Your task to perform on an android device: Toggle the flashlight Image 0: 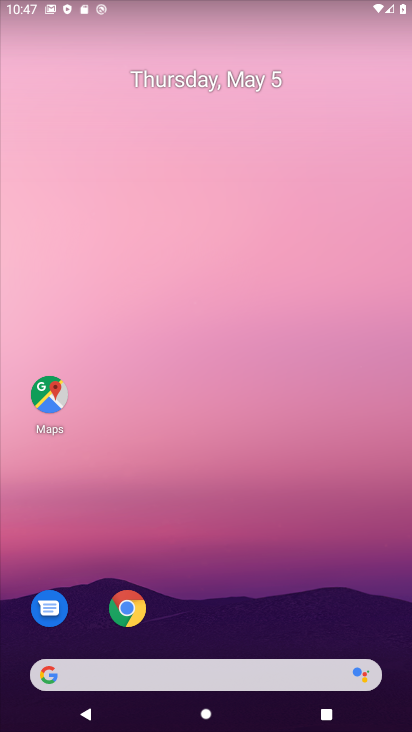
Step 0: drag from (243, 586) to (107, 75)
Your task to perform on an android device: Toggle the flashlight Image 1: 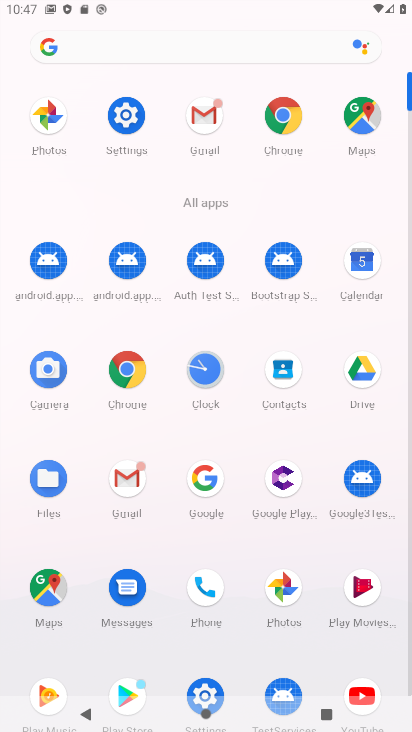
Step 1: click (122, 107)
Your task to perform on an android device: Toggle the flashlight Image 2: 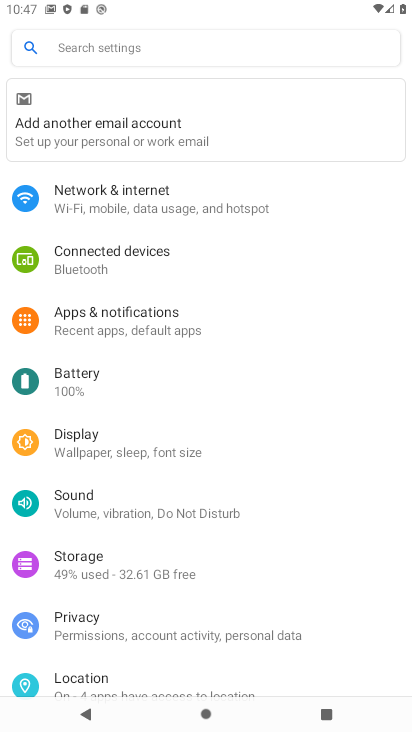
Step 2: click (81, 432)
Your task to perform on an android device: Toggle the flashlight Image 3: 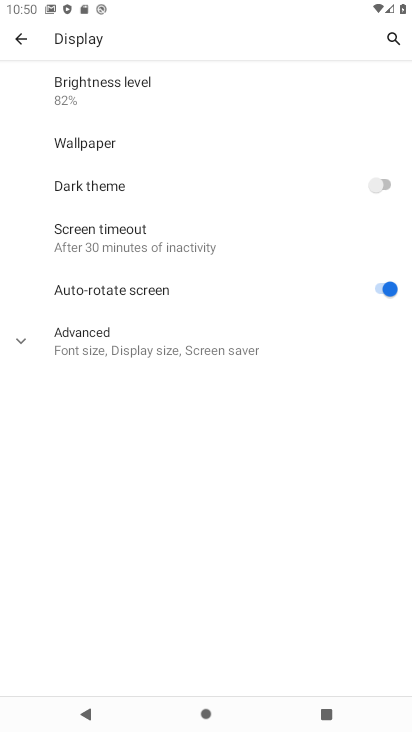
Step 3: task complete